Your task to perform on an android device: open app "Google Drive" Image 0: 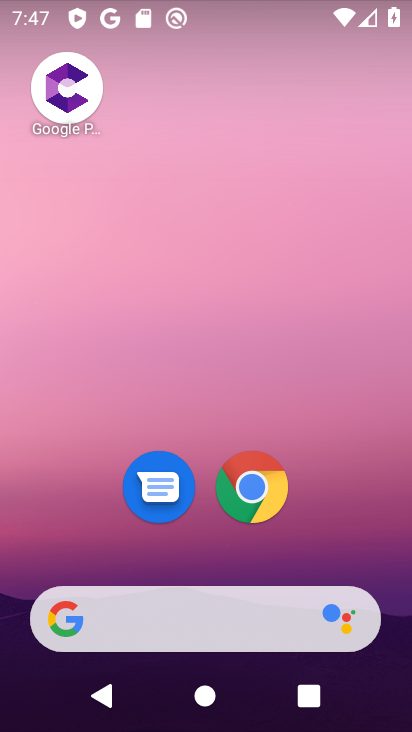
Step 0: drag from (230, 665) to (139, 46)
Your task to perform on an android device: open app "Google Drive" Image 1: 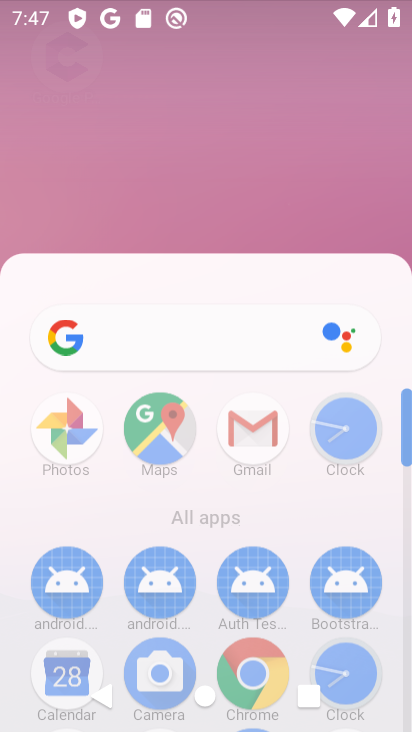
Step 1: drag from (202, 371) to (219, 3)
Your task to perform on an android device: open app "Google Drive" Image 2: 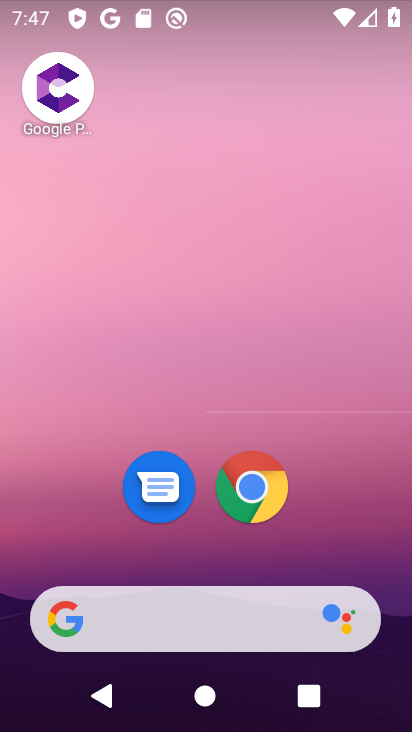
Step 2: drag from (222, 396) to (180, 114)
Your task to perform on an android device: open app "Google Drive" Image 3: 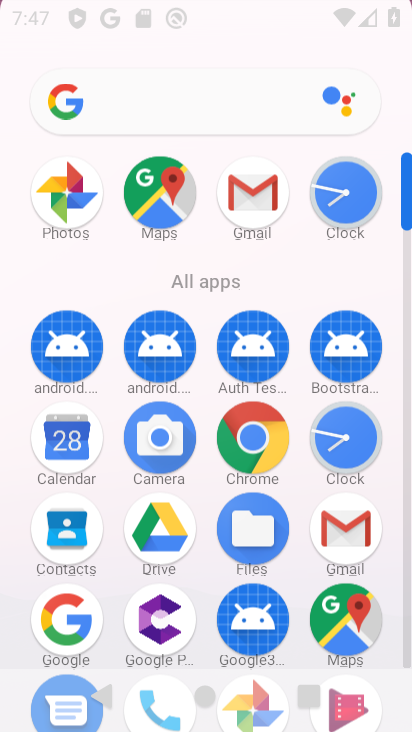
Step 3: drag from (275, 543) to (182, 64)
Your task to perform on an android device: open app "Google Drive" Image 4: 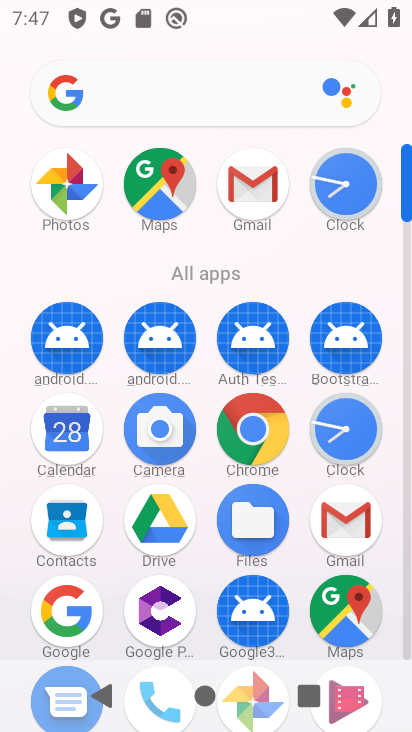
Step 4: drag from (203, 421) to (151, 31)
Your task to perform on an android device: open app "Google Drive" Image 5: 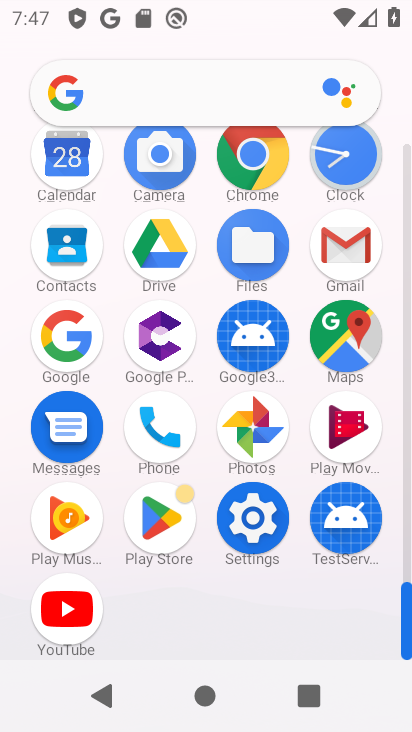
Step 5: click (151, 525)
Your task to perform on an android device: open app "Google Drive" Image 6: 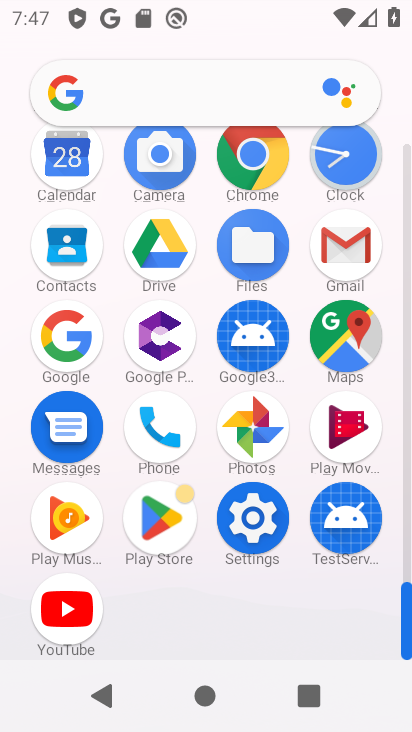
Step 6: click (151, 525)
Your task to perform on an android device: open app "Google Drive" Image 7: 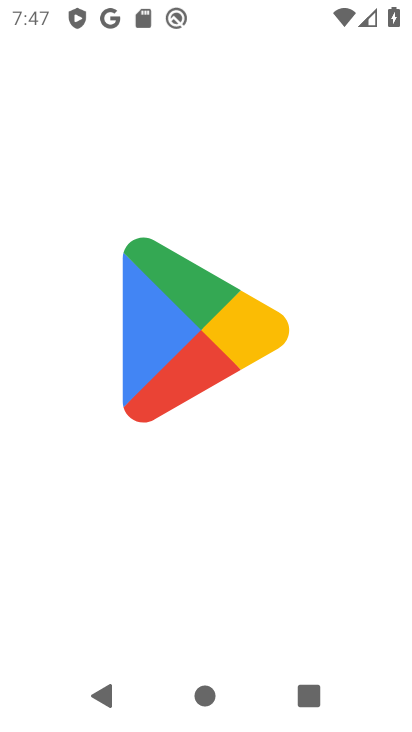
Step 7: click (149, 522)
Your task to perform on an android device: open app "Google Drive" Image 8: 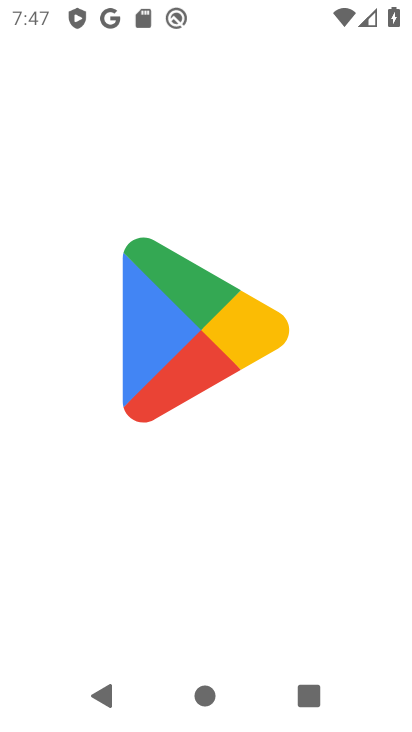
Step 8: click (149, 522)
Your task to perform on an android device: open app "Google Drive" Image 9: 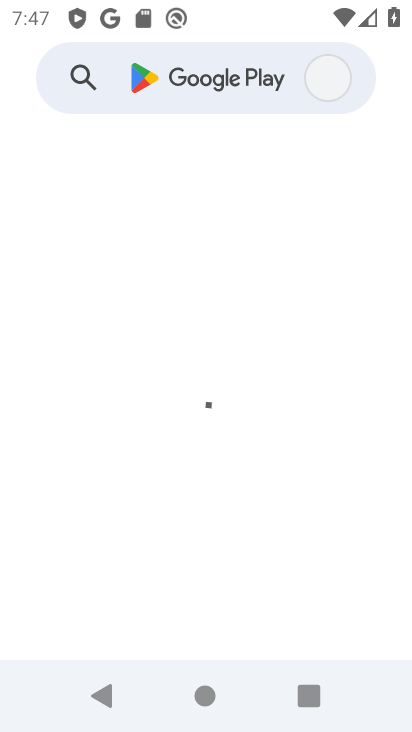
Step 9: click (165, 74)
Your task to perform on an android device: open app "Google Drive" Image 10: 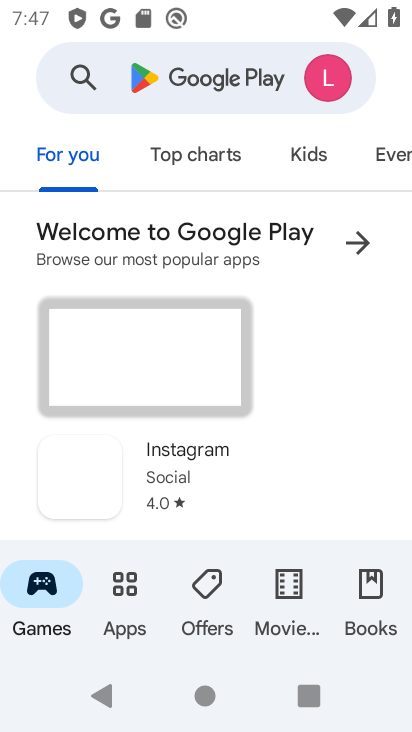
Step 10: click (169, 75)
Your task to perform on an android device: open app "Google Drive" Image 11: 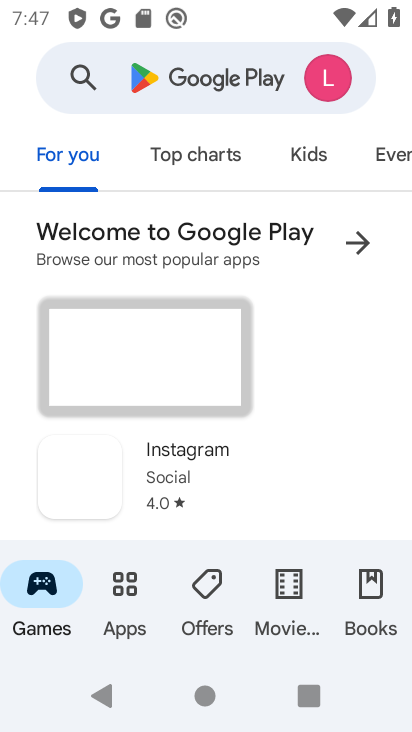
Step 11: click (187, 100)
Your task to perform on an android device: open app "Google Drive" Image 12: 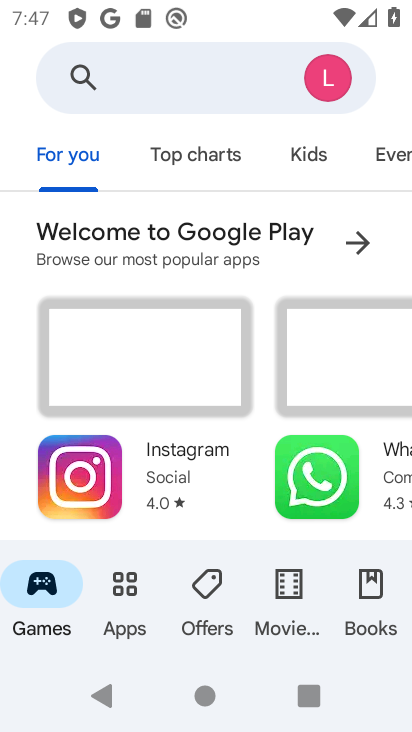
Step 12: click (182, 86)
Your task to perform on an android device: open app "Google Drive" Image 13: 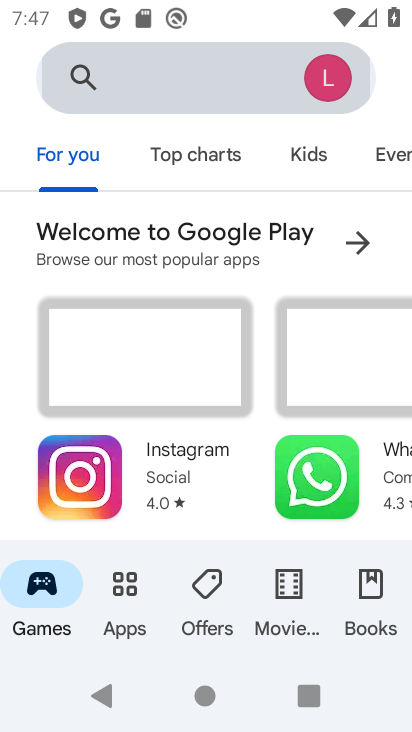
Step 13: click (180, 74)
Your task to perform on an android device: open app "Google Drive" Image 14: 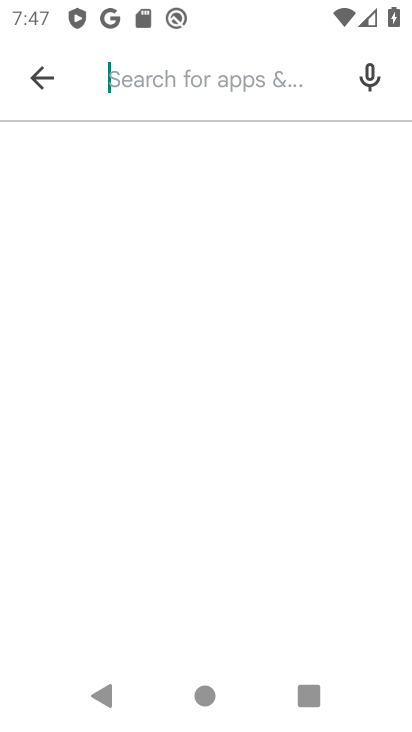
Step 14: click (182, 73)
Your task to perform on an android device: open app "Google Drive" Image 15: 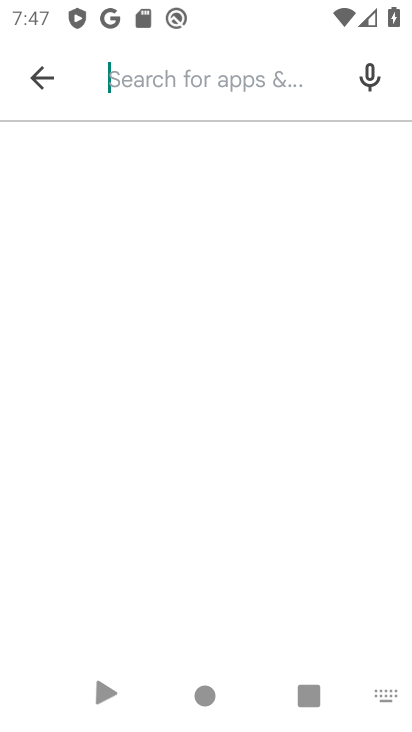
Step 15: click (188, 73)
Your task to perform on an android device: open app "Google Drive" Image 16: 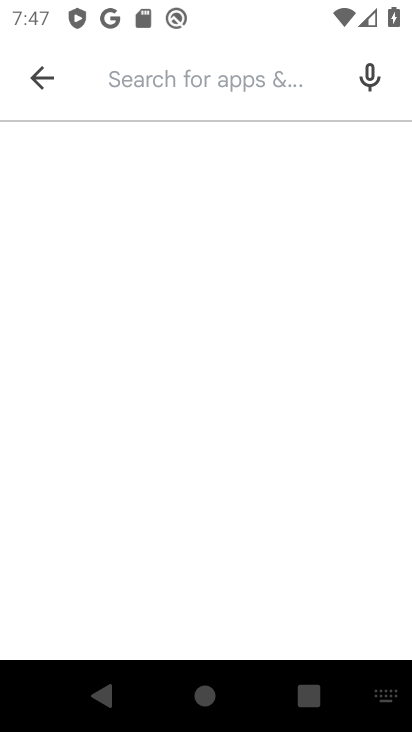
Step 16: type "google drive"
Your task to perform on an android device: open app "Google Drive" Image 17: 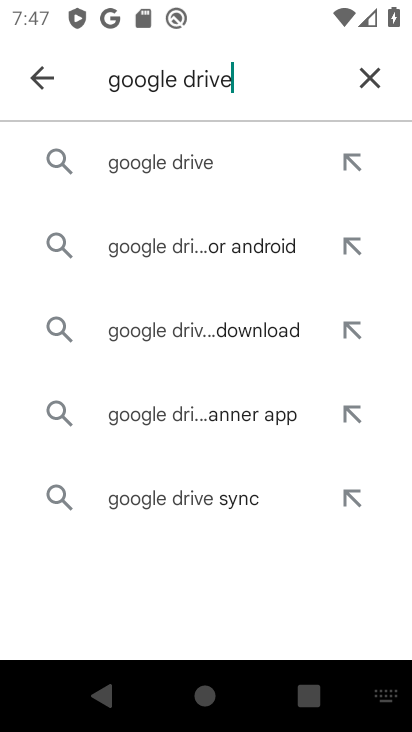
Step 17: click (192, 171)
Your task to perform on an android device: open app "Google Drive" Image 18: 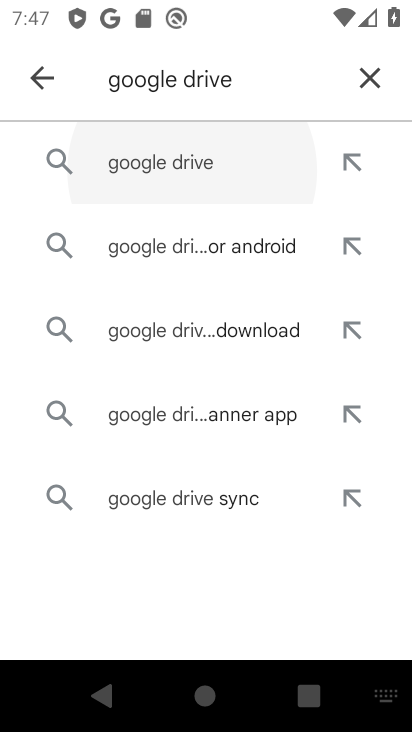
Step 18: click (190, 166)
Your task to perform on an android device: open app "Google Drive" Image 19: 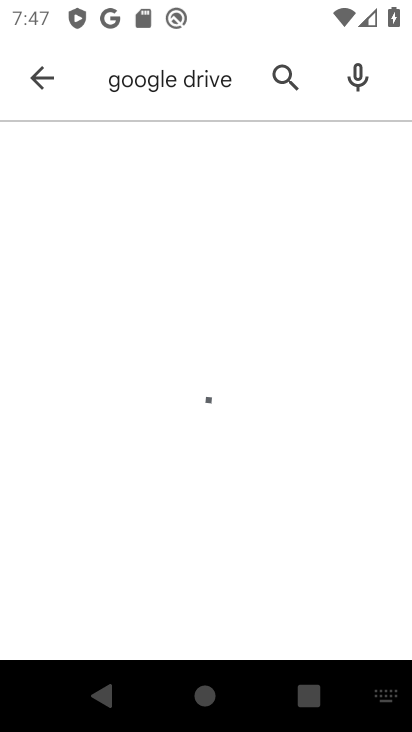
Step 19: click (195, 170)
Your task to perform on an android device: open app "Google Drive" Image 20: 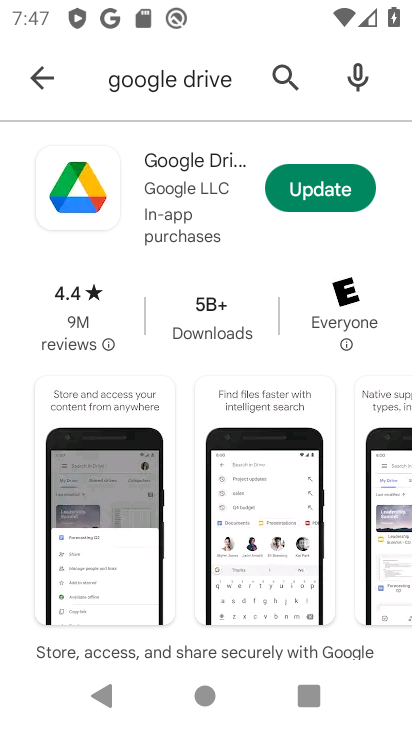
Step 20: click (325, 185)
Your task to perform on an android device: open app "Google Drive" Image 21: 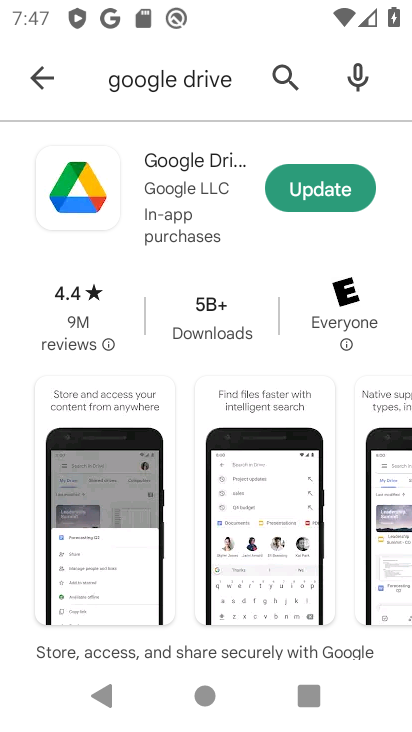
Step 21: click (326, 185)
Your task to perform on an android device: open app "Google Drive" Image 22: 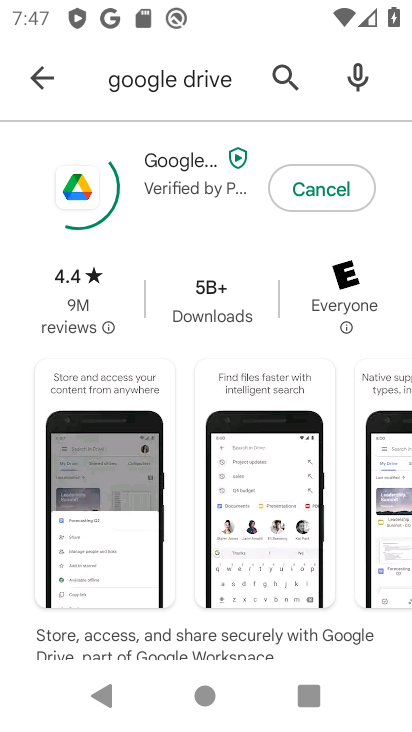
Step 22: click (327, 185)
Your task to perform on an android device: open app "Google Drive" Image 23: 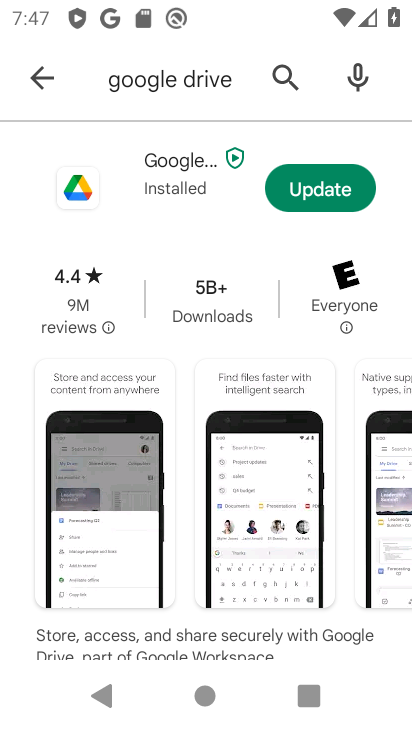
Step 23: click (328, 187)
Your task to perform on an android device: open app "Google Drive" Image 24: 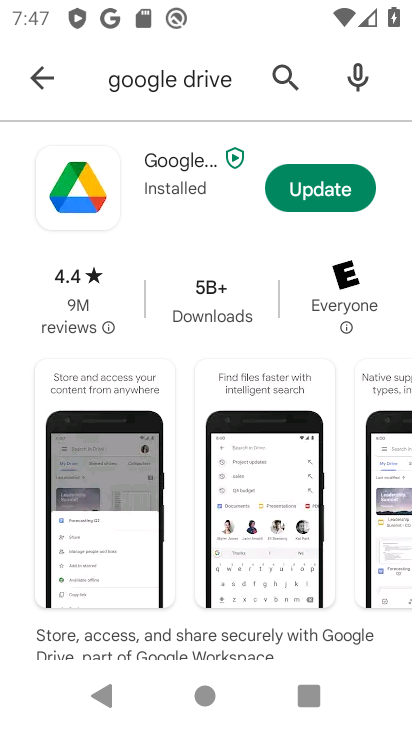
Step 24: click (363, 171)
Your task to perform on an android device: open app "Google Drive" Image 25: 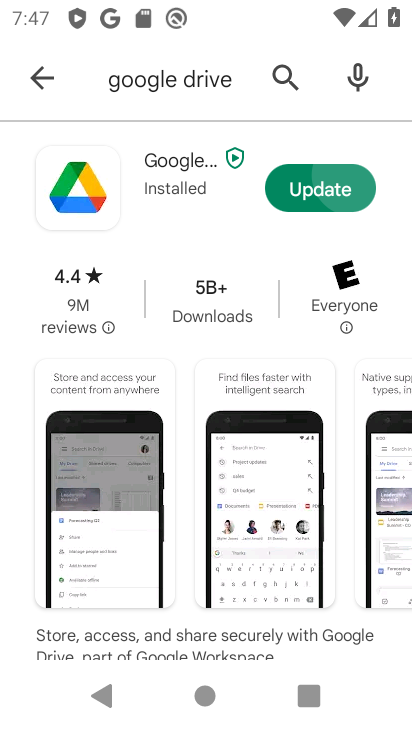
Step 25: click (354, 179)
Your task to perform on an android device: open app "Google Drive" Image 26: 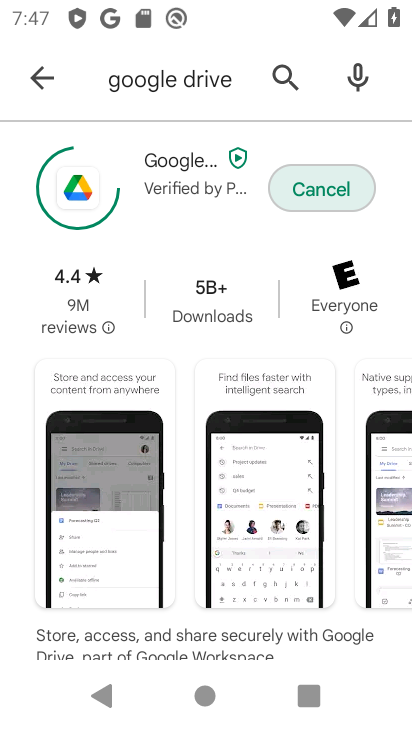
Step 26: click (336, 196)
Your task to perform on an android device: open app "Google Drive" Image 27: 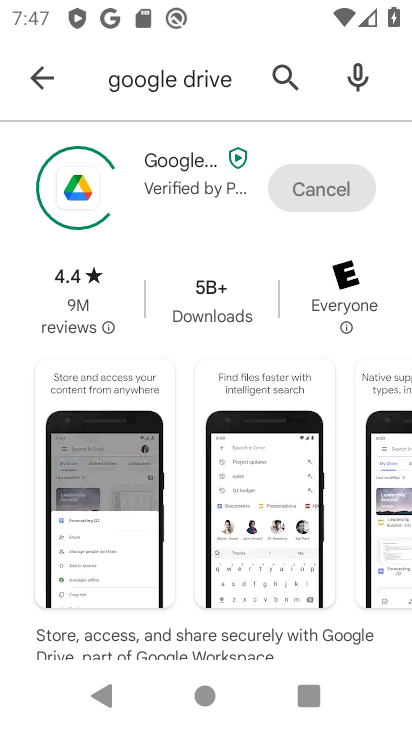
Step 27: click (337, 201)
Your task to perform on an android device: open app "Google Drive" Image 28: 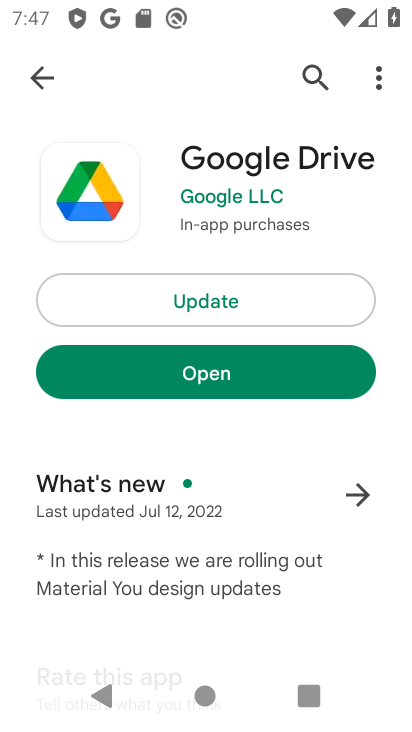
Step 28: click (218, 364)
Your task to perform on an android device: open app "Google Drive" Image 29: 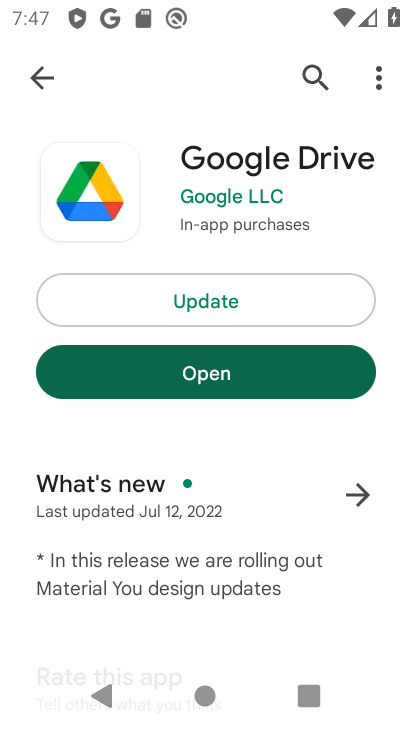
Step 29: click (225, 377)
Your task to perform on an android device: open app "Google Drive" Image 30: 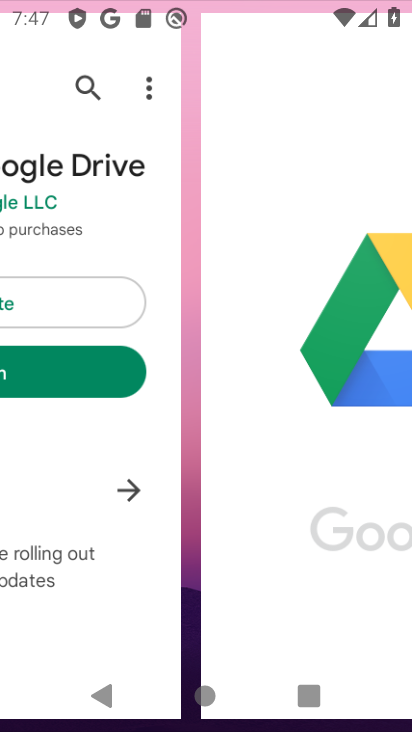
Step 30: click (225, 377)
Your task to perform on an android device: open app "Google Drive" Image 31: 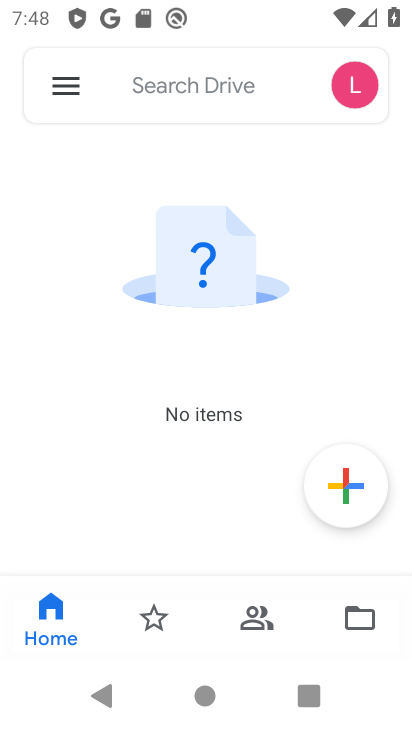
Step 31: task complete